Your task to perform on an android device: Open Chrome and go to settings Image 0: 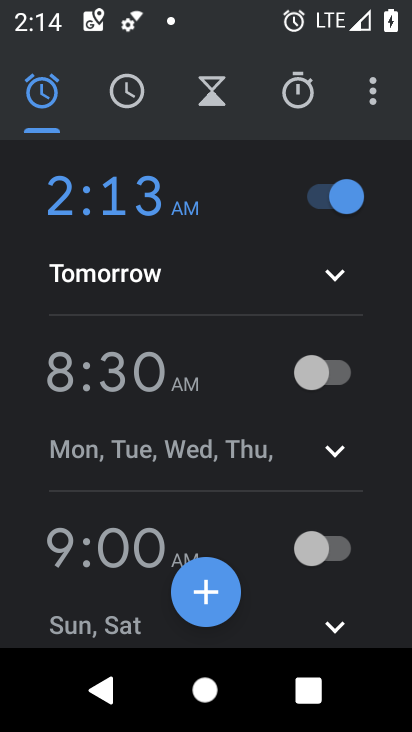
Step 0: press home button
Your task to perform on an android device: Open Chrome and go to settings Image 1: 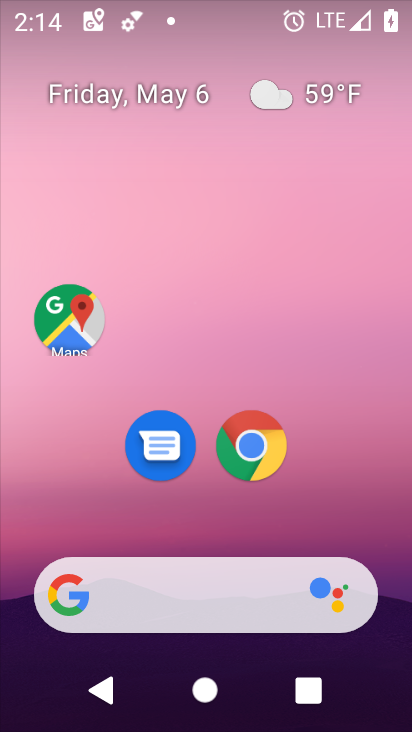
Step 1: click (255, 454)
Your task to perform on an android device: Open Chrome and go to settings Image 2: 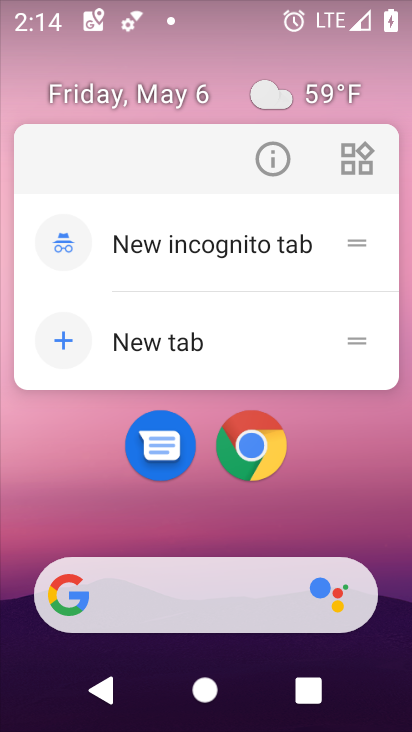
Step 2: click (256, 457)
Your task to perform on an android device: Open Chrome and go to settings Image 3: 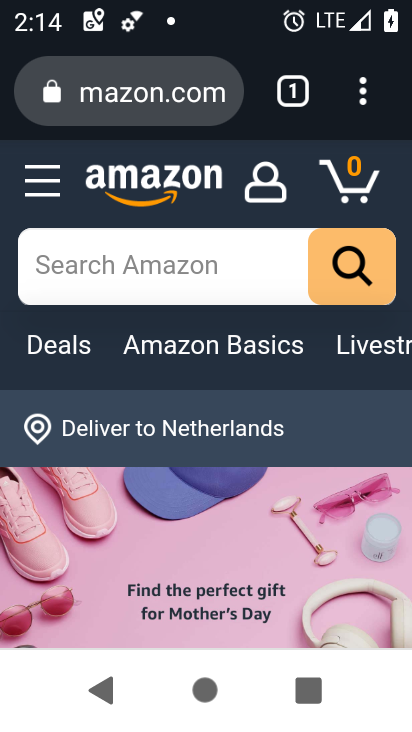
Step 3: click (367, 97)
Your task to perform on an android device: Open Chrome and go to settings Image 4: 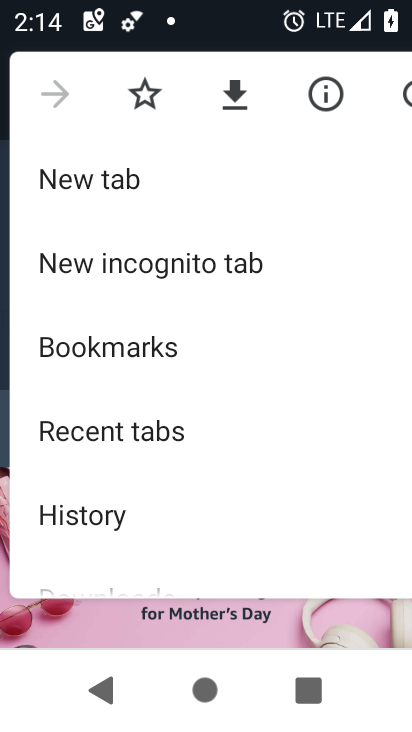
Step 4: drag from (215, 545) to (199, 396)
Your task to perform on an android device: Open Chrome and go to settings Image 5: 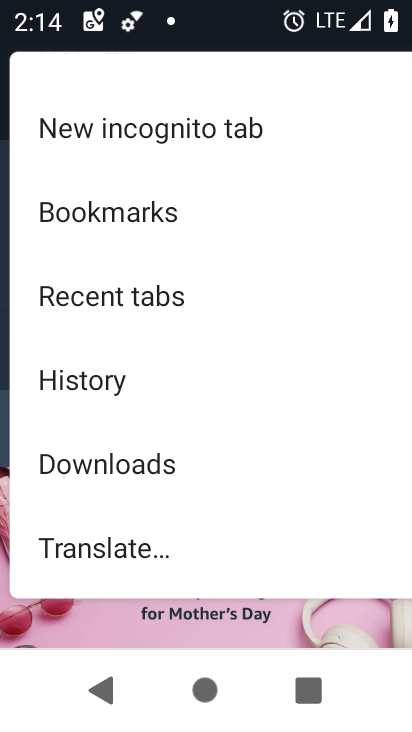
Step 5: drag from (169, 528) to (181, 456)
Your task to perform on an android device: Open Chrome and go to settings Image 6: 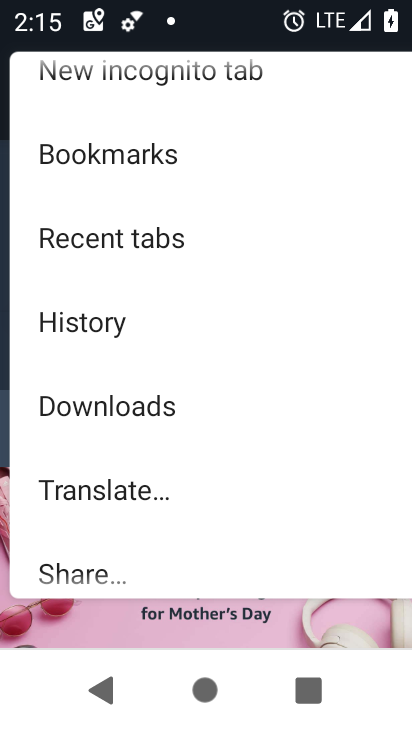
Step 6: drag from (213, 539) to (231, 477)
Your task to perform on an android device: Open Chrome and go to settings Image 7: 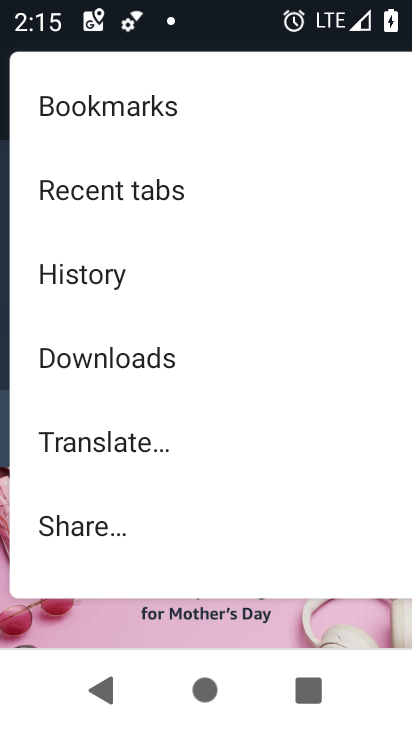
Step 7: drag from (218, 525) to (218, 476)
Your task to perform on an android device: Open Chrome and go to settings Image 8: 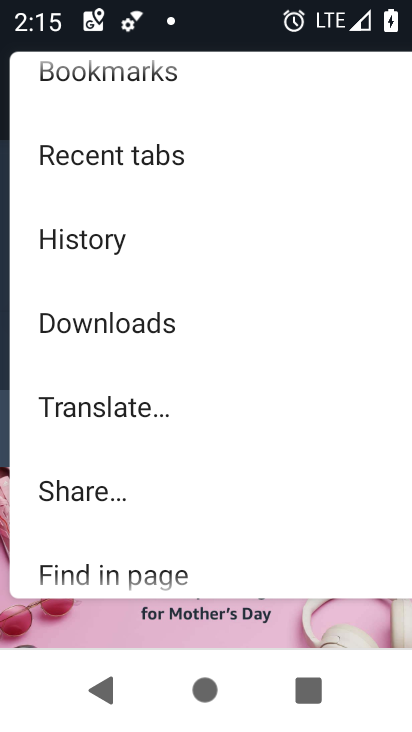
Step 8: drag from (203, 517) to (206, 461)
Your task to perform on an android device: Open Chrome and go to settings Image 9: 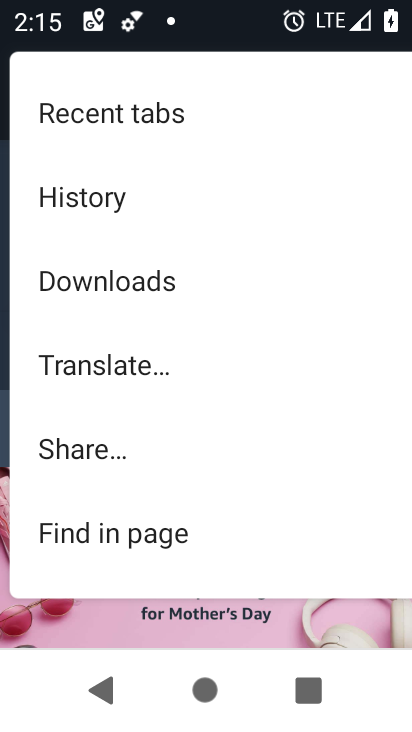
Step 9: drag from (206, 511) to (221, 442)
Your task to perform on an android device: Open Chrome and go to settings Image 10: 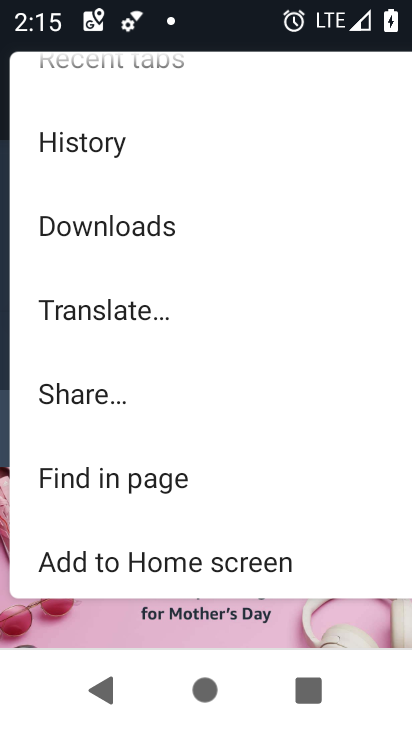
Step 10: drag from (220, 513) to (220, 455)
Your task to perform on an android device: Open Chrome and go to settings Image 11: 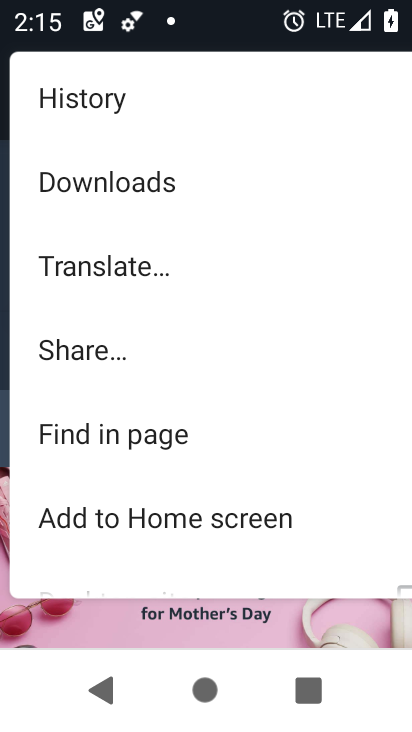
Step 11: drag from (202, 516) to (202, 456)
Your task to perform on an android device: Open Chrome and go to settings Image 12: 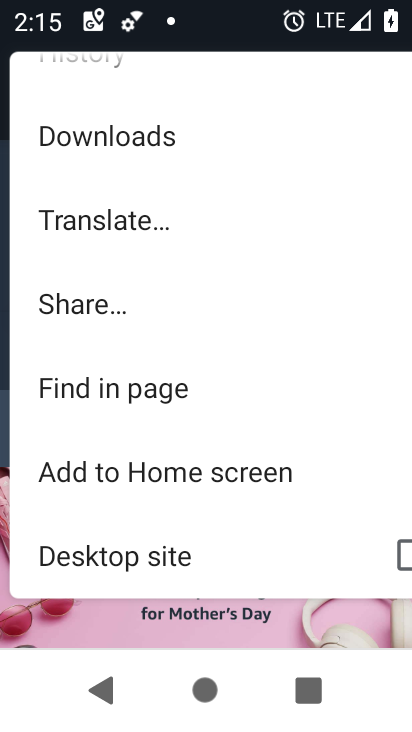
Step 12: drag from (189, 511) to (206, 428)
Your task to perform on an android device: Open Chrome and go to settings Image 13: 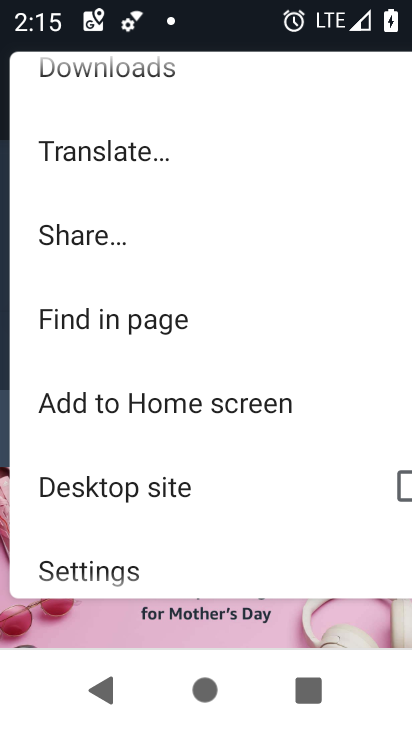
Step 13: drag from (205, 513) to (210, 410)
Your task to perform on an android device: Open Chrome and go to settings Image 14: 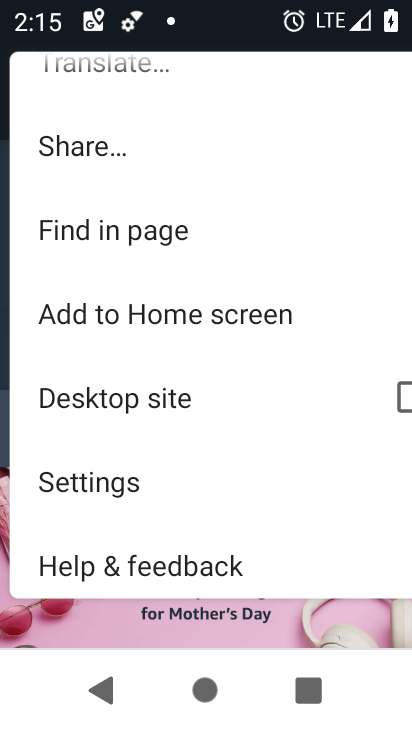
Step 14: click (170, 488)
Your task to perform on an android device: Open Chrome and go to settings Image 15: 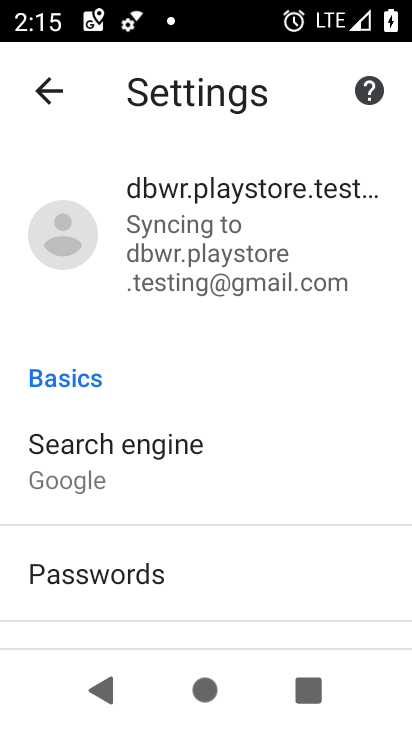
Step 15: task complete